Your task to perform on an android device: toggle priority inbox in the gmail app Image 0: 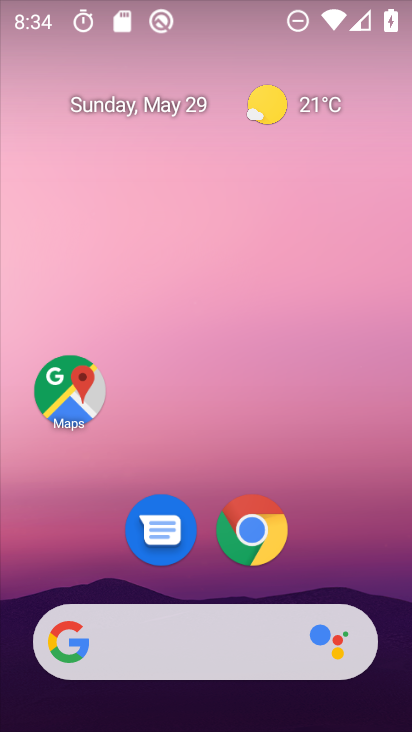
Step 0: drag from (238, 672) to (266, 191)
Your task to perform on an android device: toggle priority inbox in the gmail app Image 1: 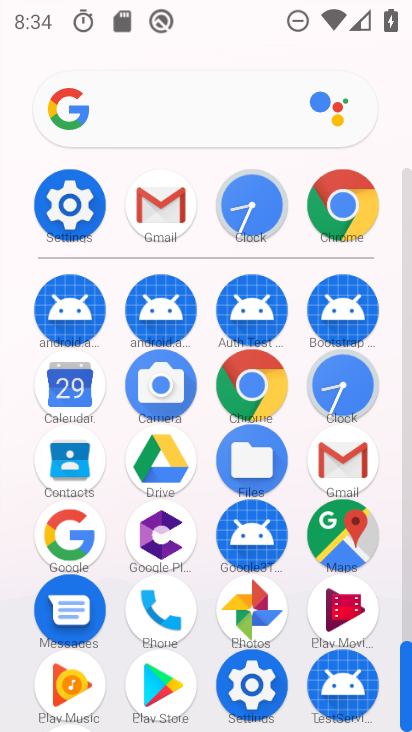
Step 1: click (143, 220)
Your task to perform on an android device: toggle priority inbox in the gmail app Image 2: 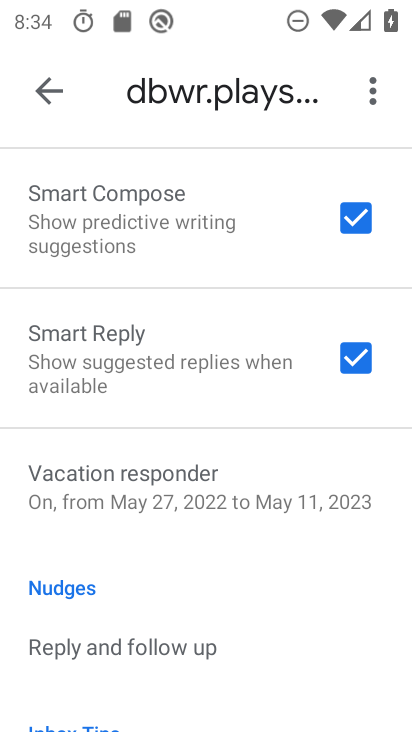
Step 2: drag from (142, 247) to (184, 514)
Your task to perform on an android device: toggle priority inbox in the gmail app Image 3: 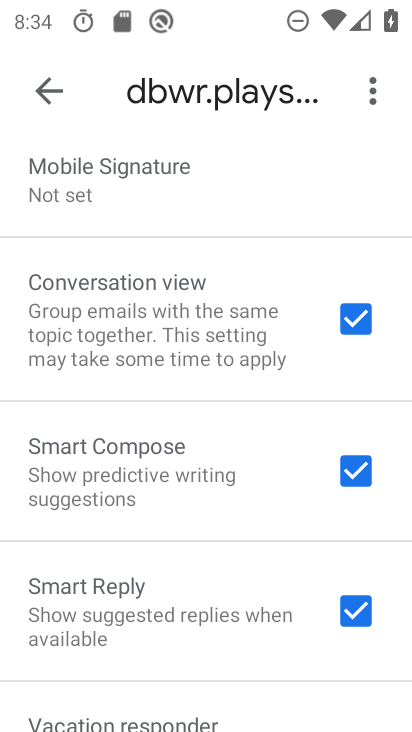
Step 3: drag from (152, 229) to (177, 551)
Your task to perform on an android device: toggle priority inbox in the gmail app Image 4: 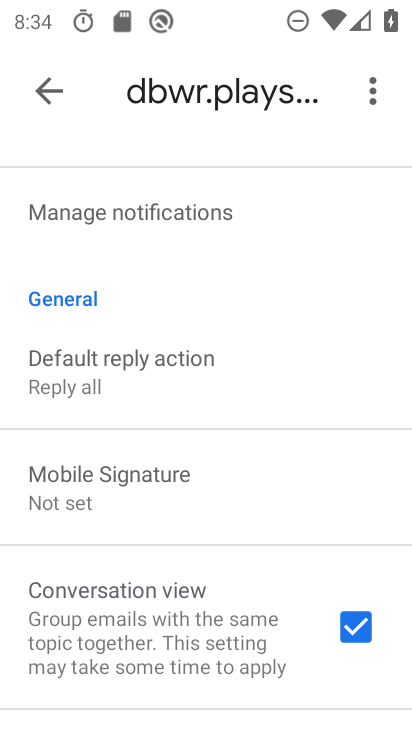
Step 4: drag from (166, 262) to (187, 574)
Your task to perform on an android device: toggle priority inbox in the gmail app Image 5: 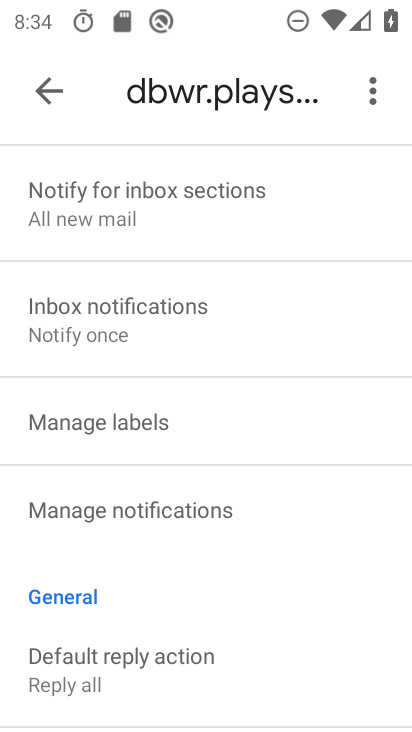
Step 5: drag from (176, 368) to (188, 546)
Your task to perform on an android device: toggle priority inbox in the gmail app Image 6: 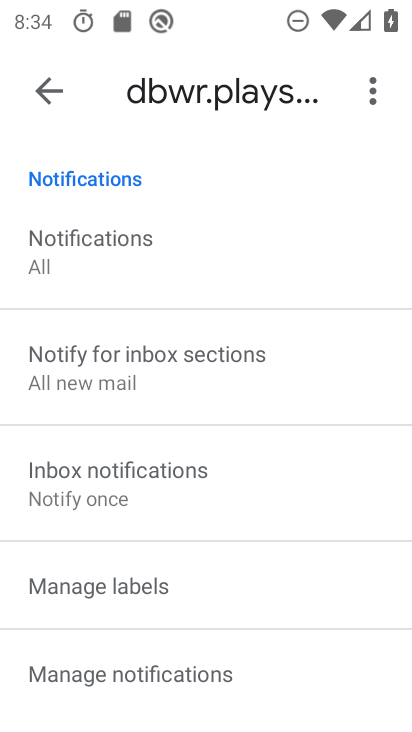
Step 6: drag from (160, 258) to (158, 553)
Your task to perform on an android device: toggle priority inbox in the gmail app Image 7: 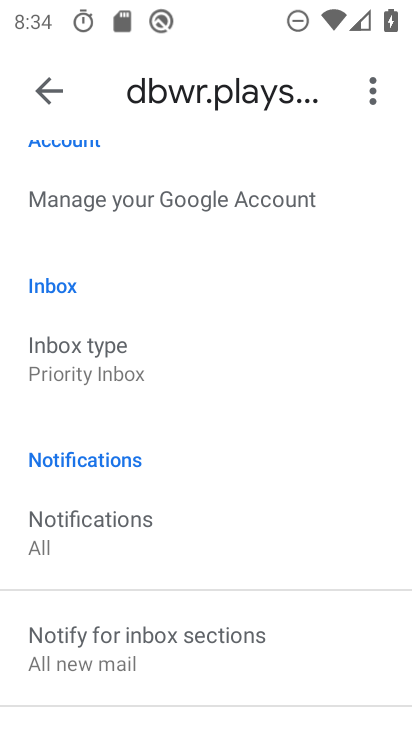
Step 7: click (107, 345)
Your task to perform on an android device: toggle priority inbox in the gmail app Image 8: 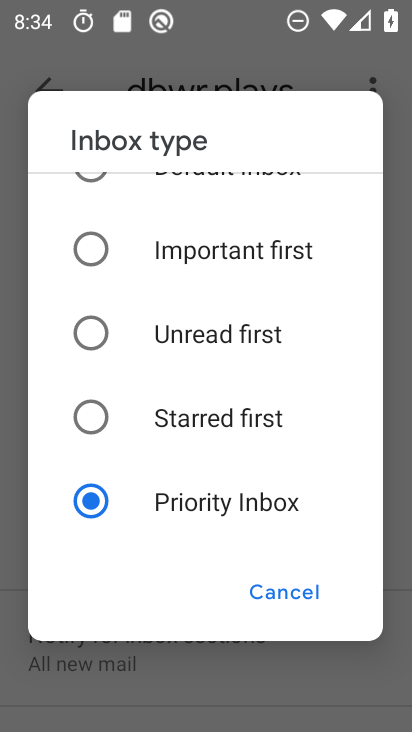
Step 8: task complete